Your task to perform on an android device: Add jbl flip 4 to the cart on bestbuy.com Image 0: 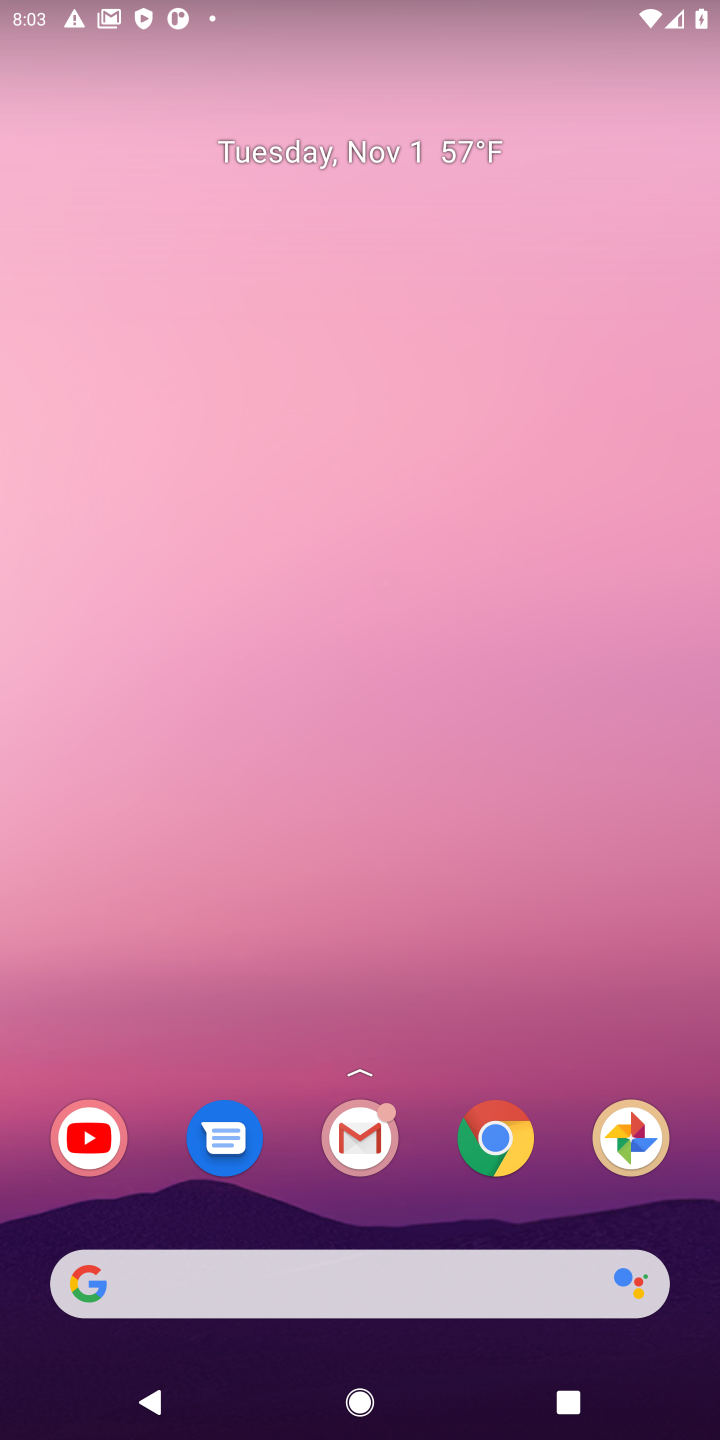
Step 0: click (494, 1162)
Your task to perform on an android device: Add jbl flip 4 to the cart on bestbuy.com Image 1: 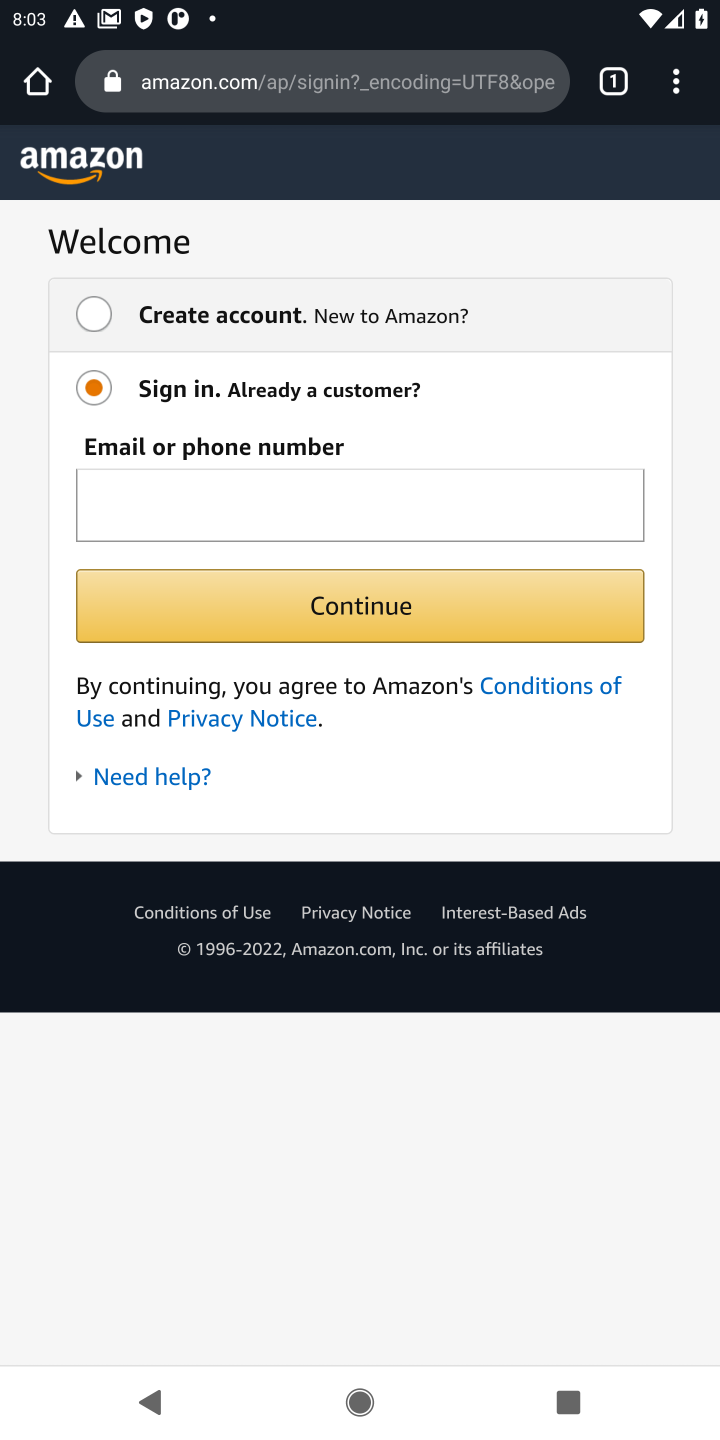
Step 1: click (287, 99)
Your task to perform on an android device: Add jbl flip 4 to the cart on bestbuy.com Image 2: 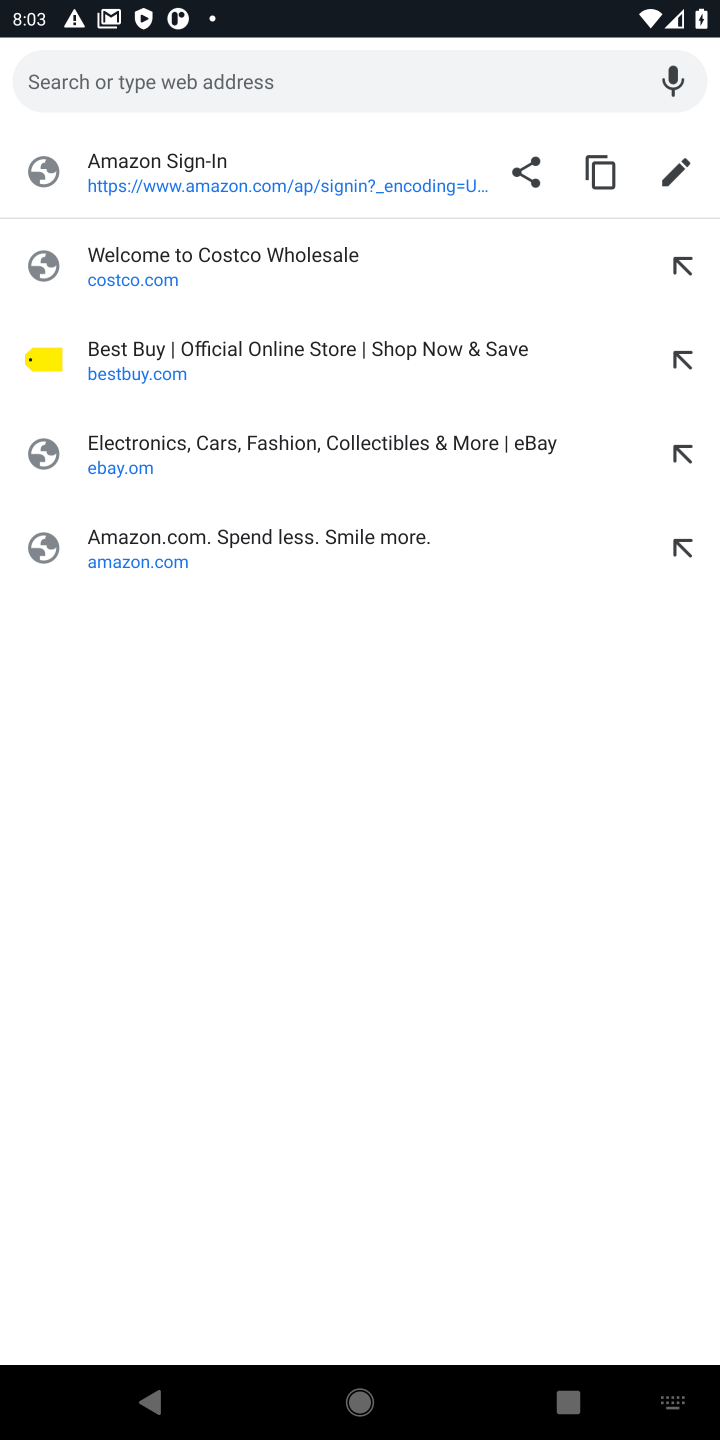
Step 2: type "bestbuy.com"
Your task to perform on an android device: Add jbl flip 4 to the cart on bestbuy.com Image 3: 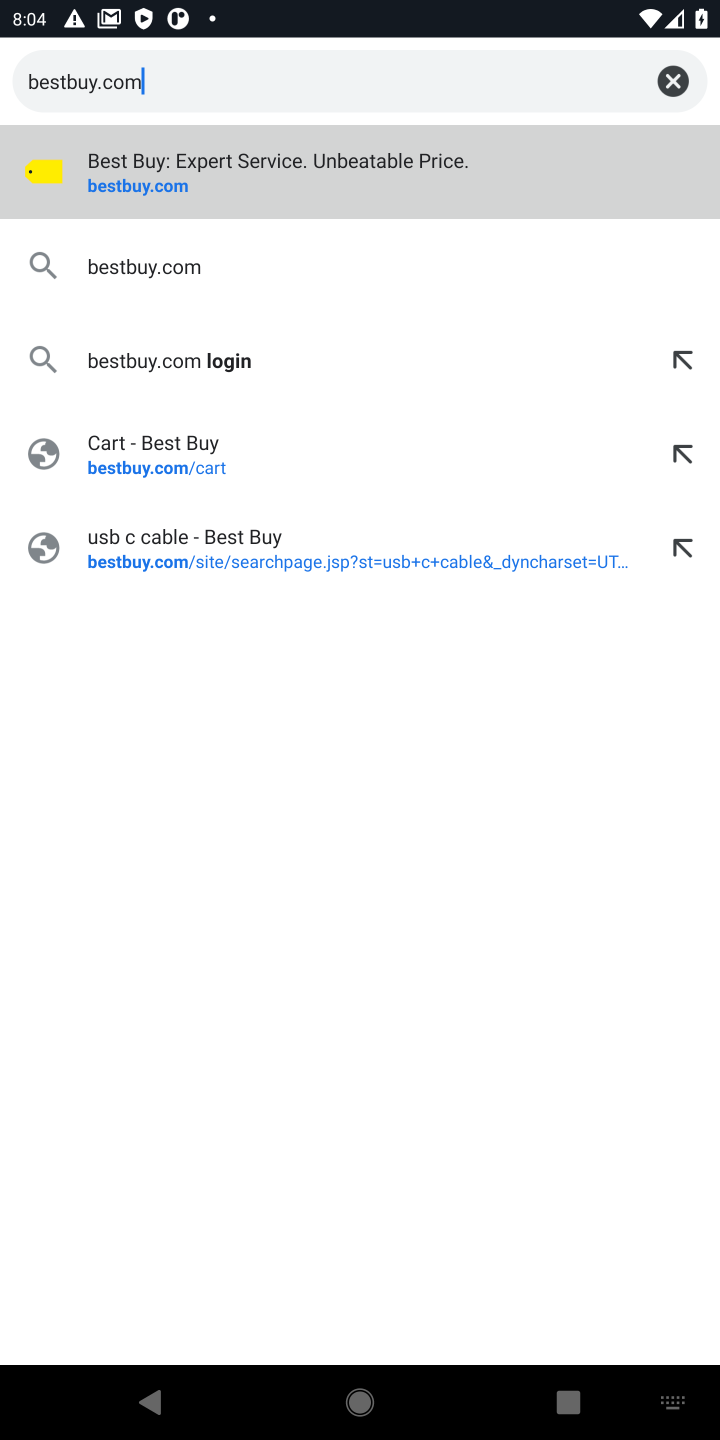
Step 3: click (180, 197)
Your task to perform on an android device: Add jbl flip 4 to the cart on bestbuy.com Image 4: 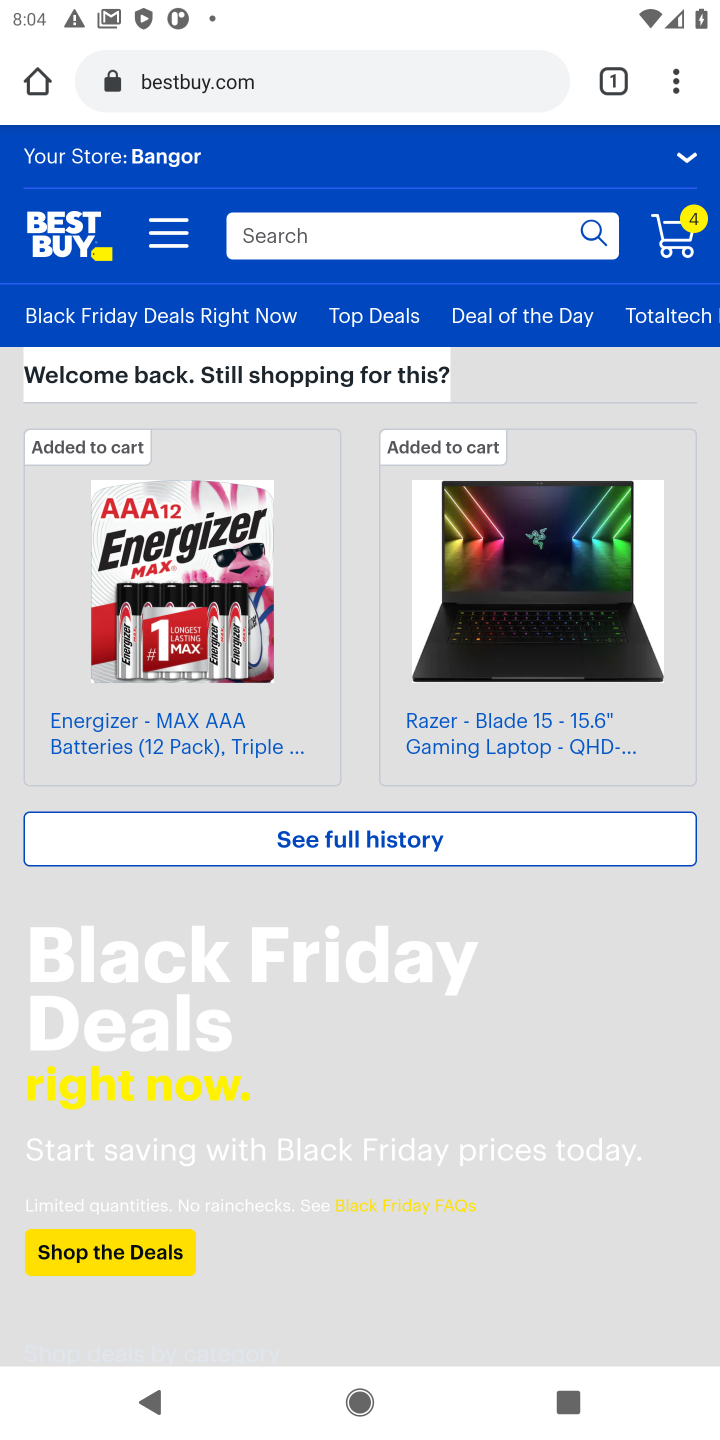
Step 4: click (307, 245)
Your task to perform on an android device: Add jbl flip 4 to the cart on bestbuy.com Image 5: 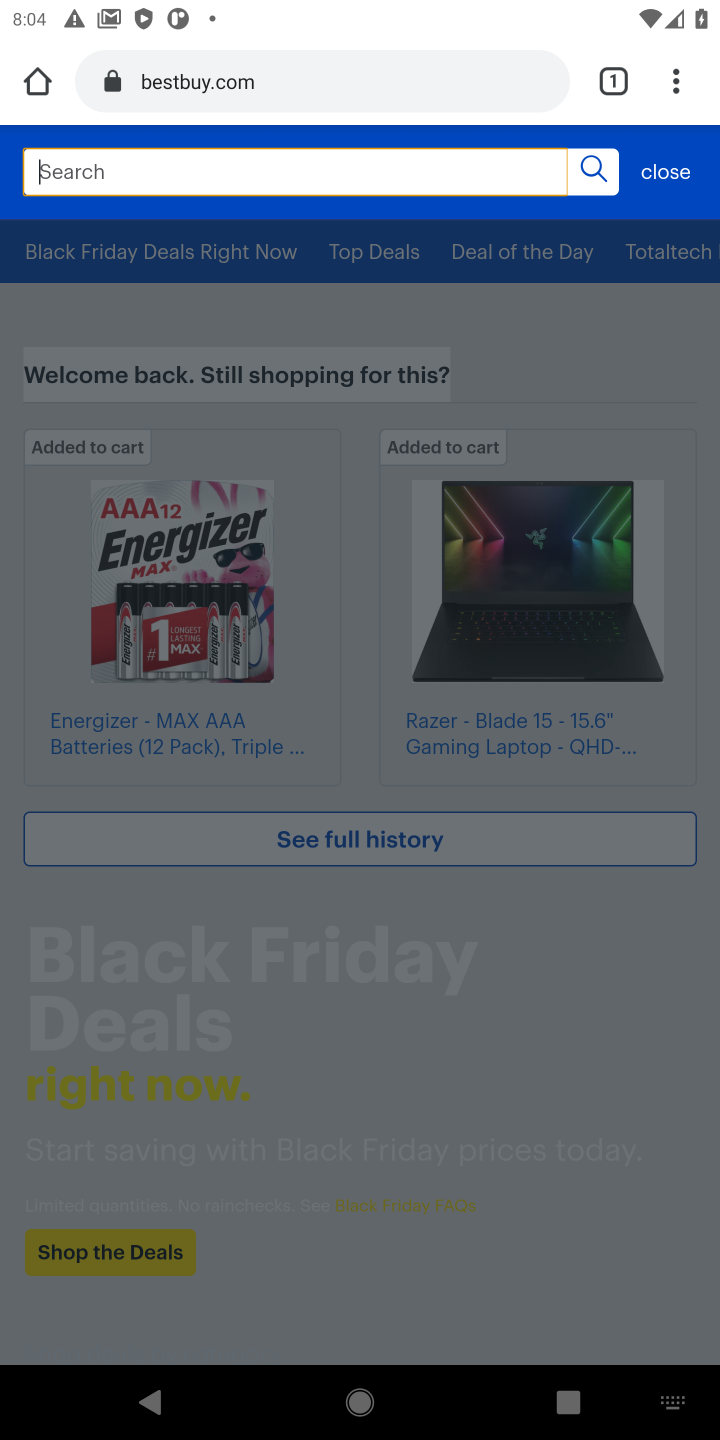
Step 5: type " jbl flip 4 "
Your task to perform on an android device: Add jbl flip 4 to the cart on bestbuy.com Image 6: 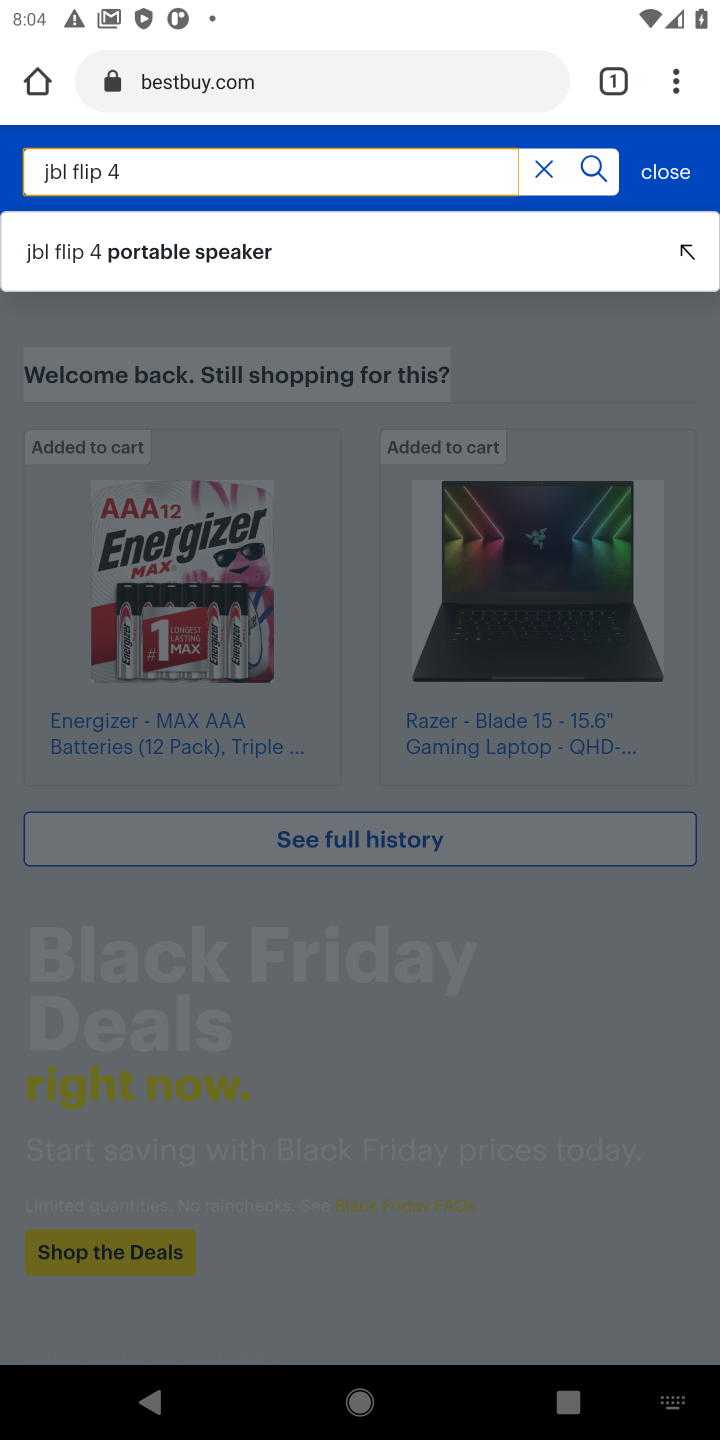
Step 6: click (173, 268)
Your task to perform on an android device: Add jbl flip 4 to the cart on bestbuy.com Image 7: 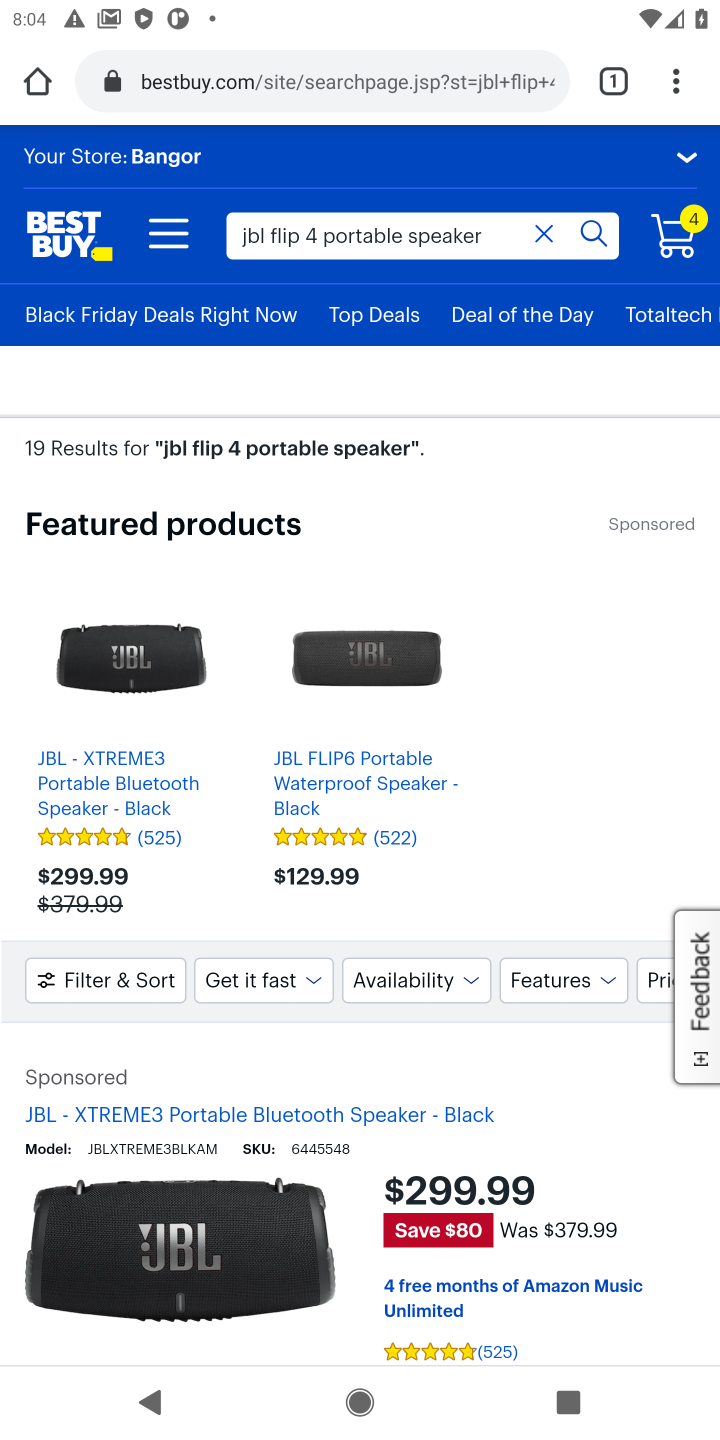
Step 7: task complete